Your task to perform on an android device: Open the map Image 0: 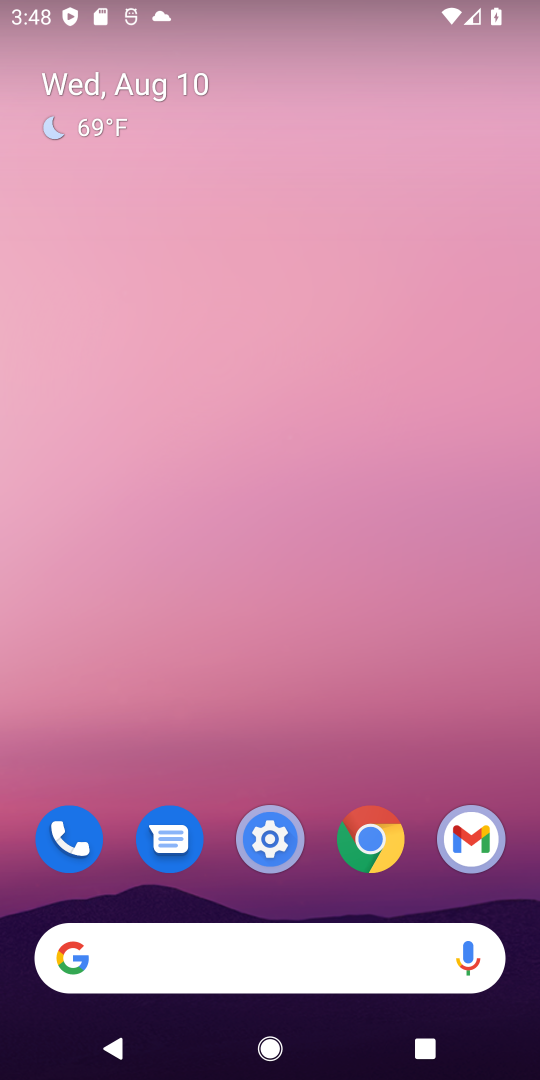
Step 0: drag from (255, 752) to (350, 0)
Your task to perform on an android device: Open the map Image 1: 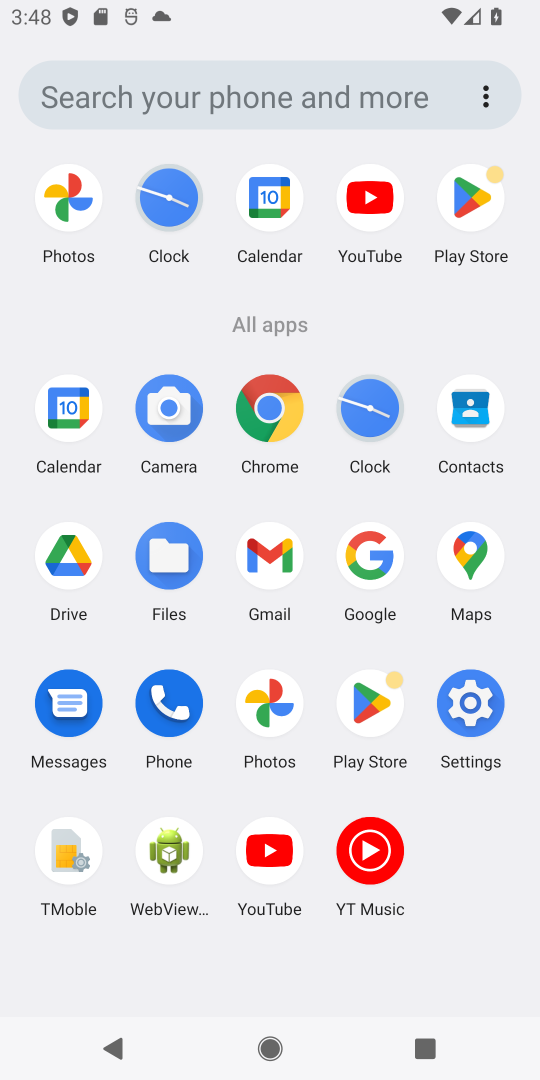
Step 1: click (481, 548)
Your task to perform on an android device: Open the map Image 2: 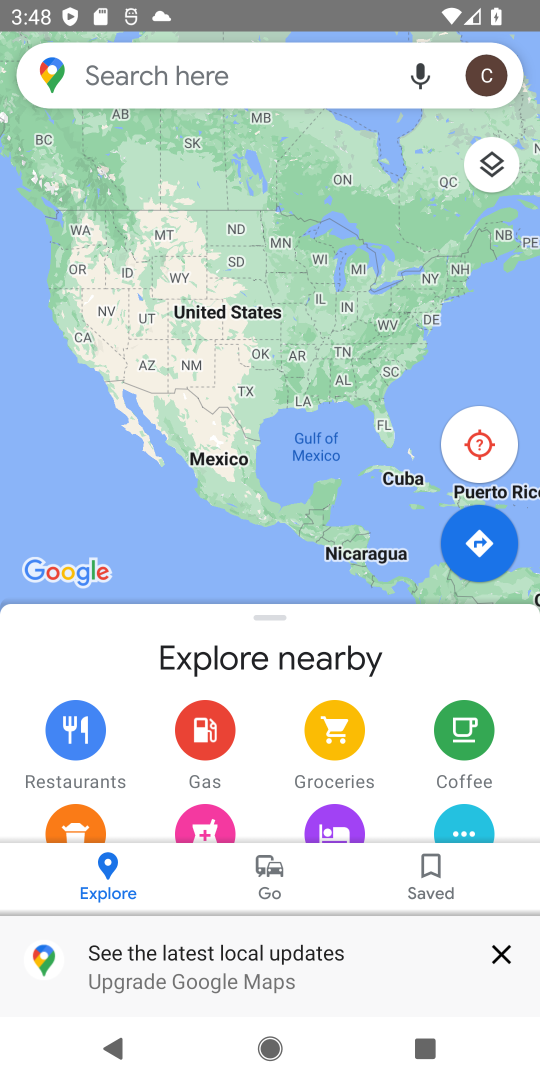
Step 2: task complete